Your task to perform on an android device: turn on bluetooth scan Image 0: 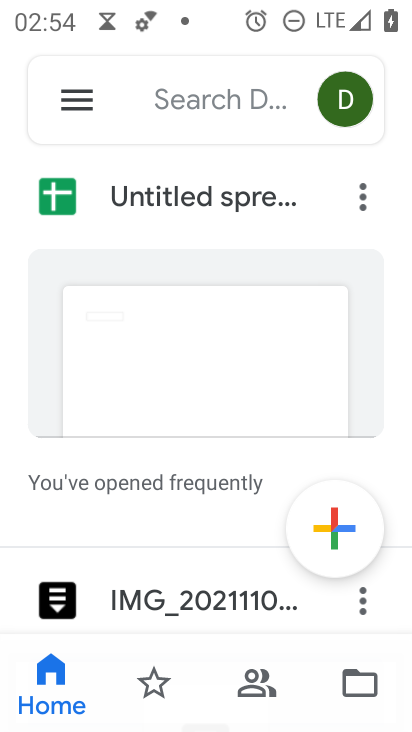
Step 0: press home button
Your task to perform on an android device: turn on bluetooth scan Image 1: 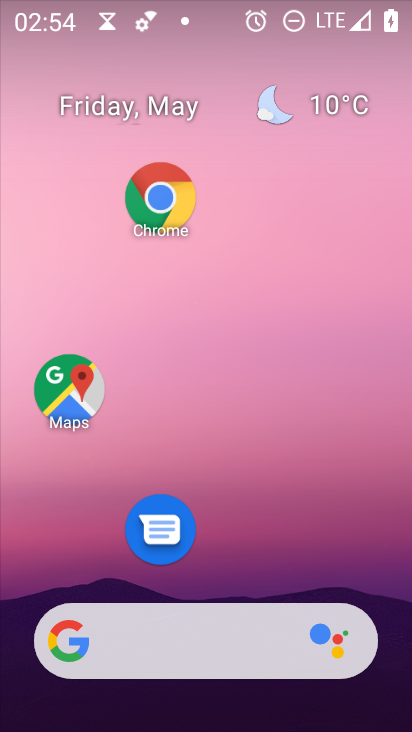
Step 1: drag from (253, 322) to (252, 228)
Your task to perform on an android device: turn on bluetooth scan Image 2: 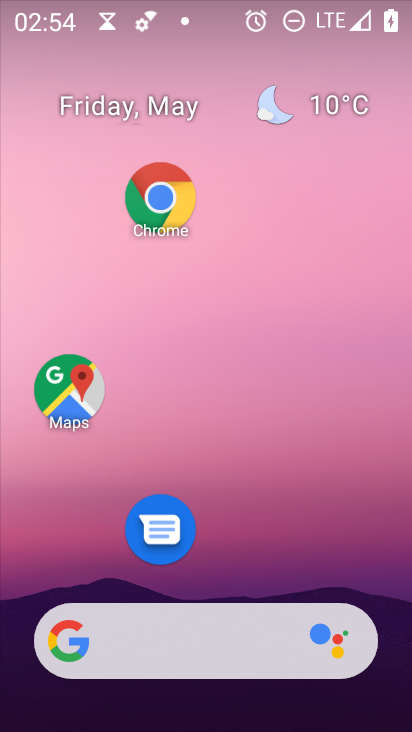
Step 2: drag from (225, 500) to (245, 241)
Your task to perform on an android device: turn on bluetooth scan Image 3: 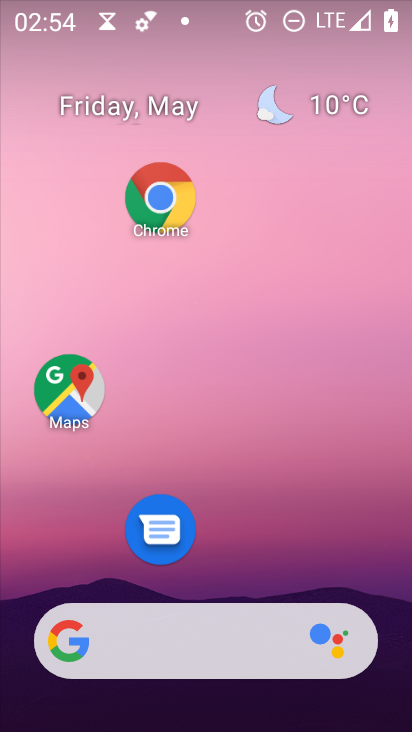
Step 3: drag from (289, 552) to (267, 96)
Your task to perform on an android device: turn on bluetooth scan Image 4: 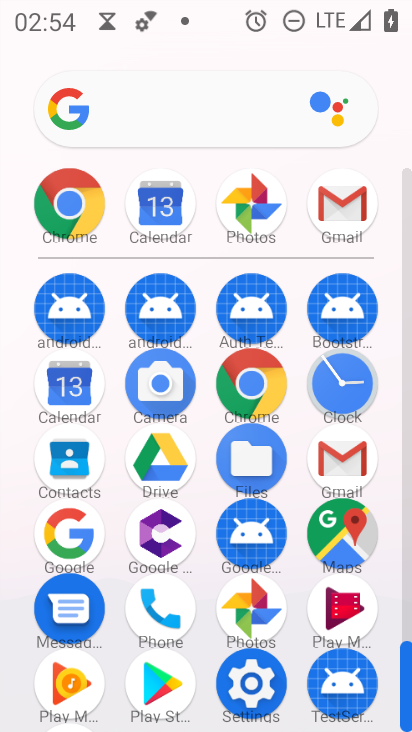
Step 4: click (77, 188)
Your task to perform on an android device: turn on bluetooth scan Image 5: 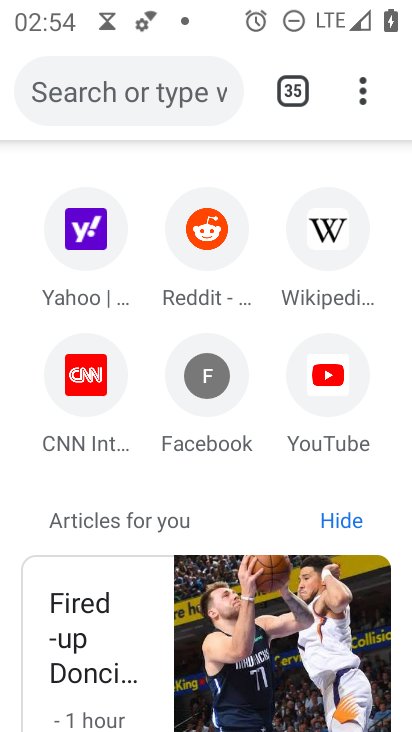
Step 5: press home button
Your task to perform on an android device: turn on bluetooth scan Image 6: 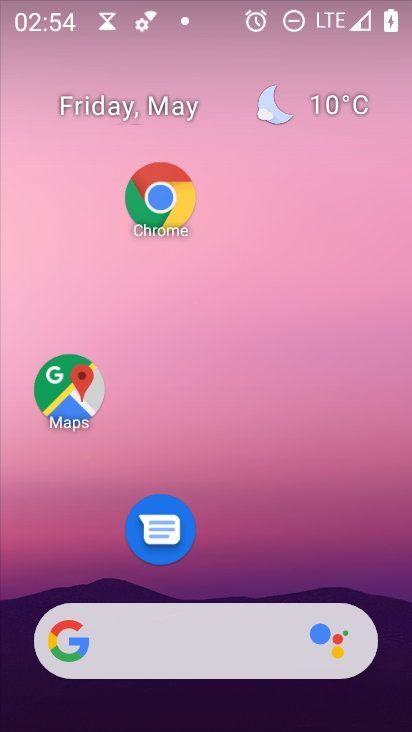
Step 6: drag from (249, 567) to (262, 241)
Your task to perform on an android device: turn on bluetooth scan Image 7: 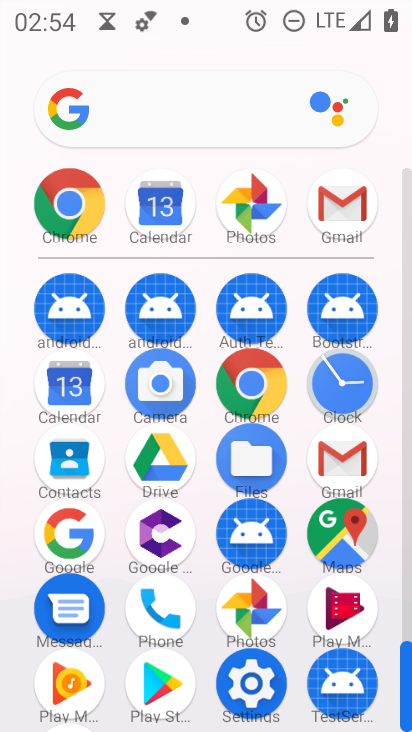
Step 7: drag from (195, 478) to (217, 240)
Your task to perform on an android device: turn on bluetooth scan Image 8: 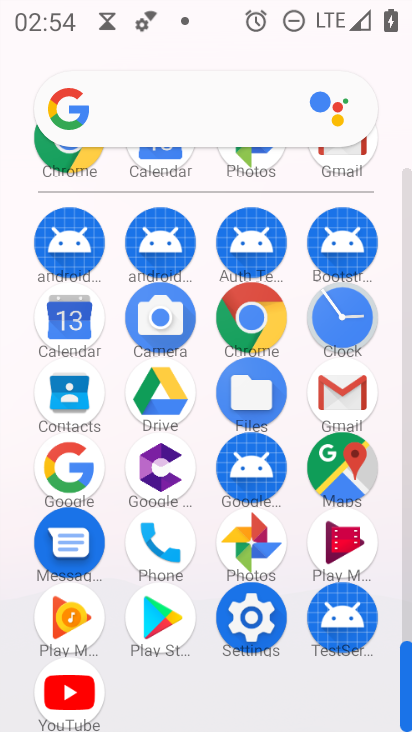
Step 8: drag from (276, 293) to (237, 696)
Your task to perform on an android device: turn on bluetooth scan Image 9: 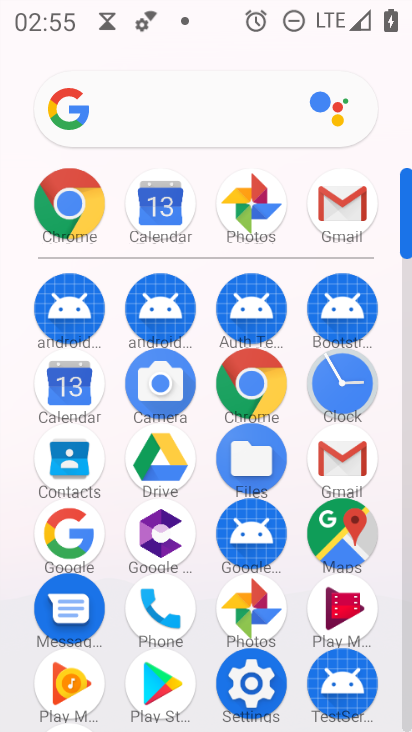
Step 9: drag from (278, 587) to (298, 448)
Your task to perform on an android device: turn on bluetooth scan Image 10: 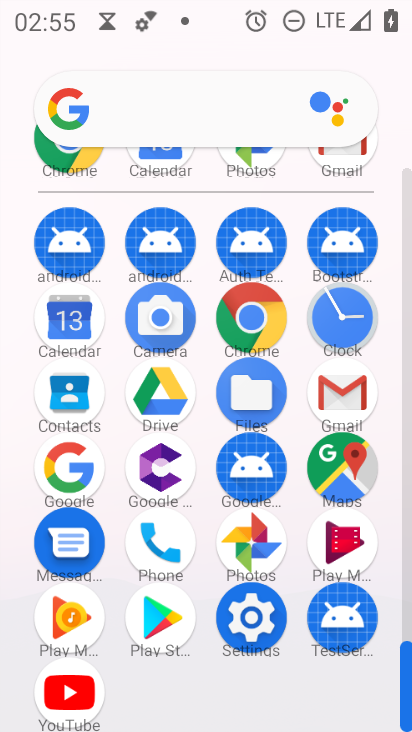
Step 10: click (255, 604)
Your task to perform on an android device: turn on bluetooth scan Image 11: 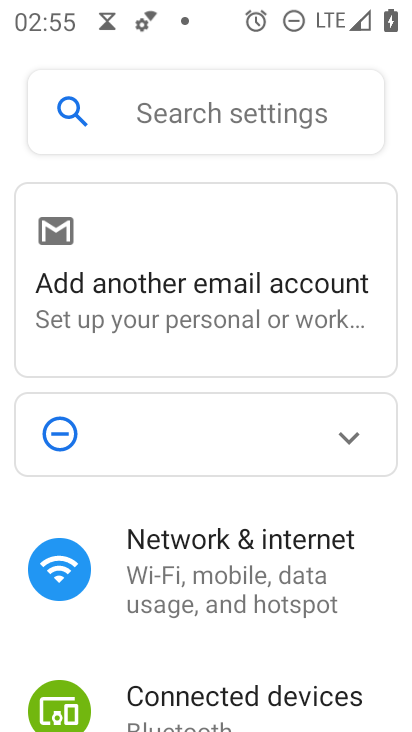
Step 11: click (215, 94)
Your task to perform on an android device: turn on bluetooth scan Image 12: 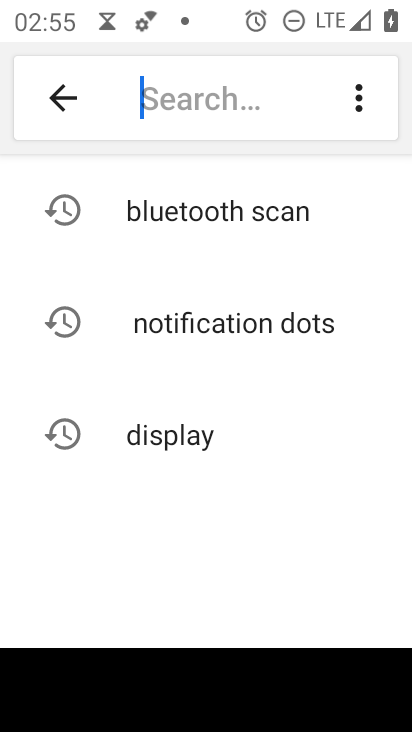
Step 12: type "bluetooth scan"
Your task to perform on an android device: turn on bluetooth scan Image 13: 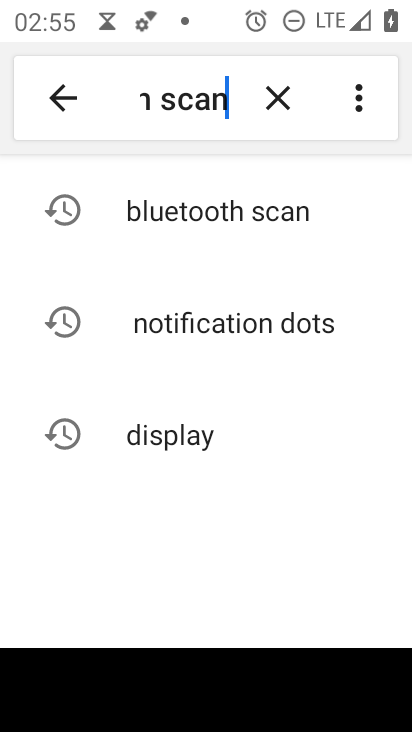
Step 13: click (187, 204)
Your task to perform on an android device: turn on bluetooth scan Image 14: 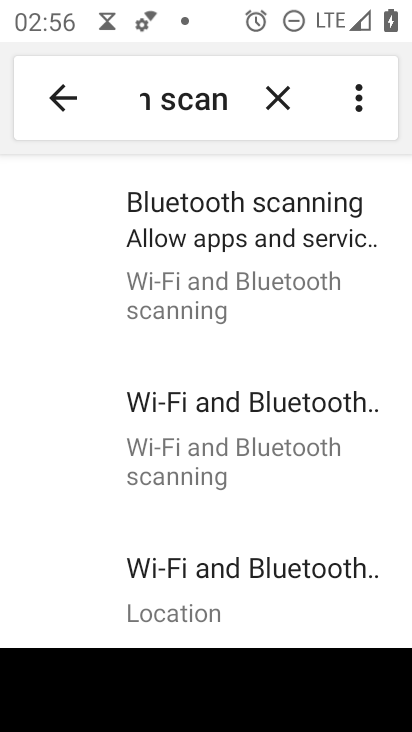
Step 14: click (173, 242)
Your task to perform on an android device: turn on bluetooth scan Image 15: 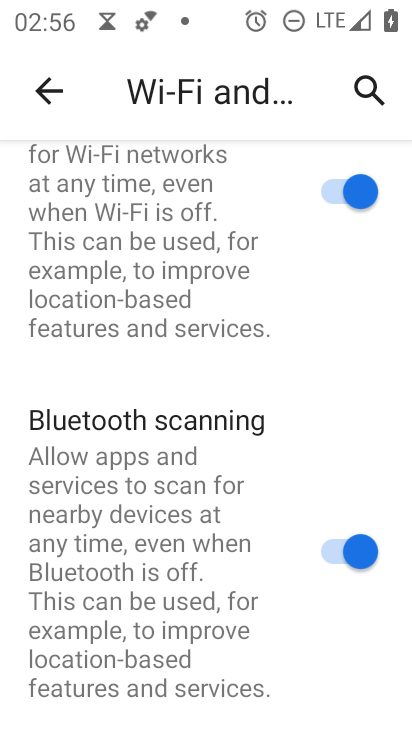
Step 15: task complete